Your task to perform on an android device: Check the news Image 0: 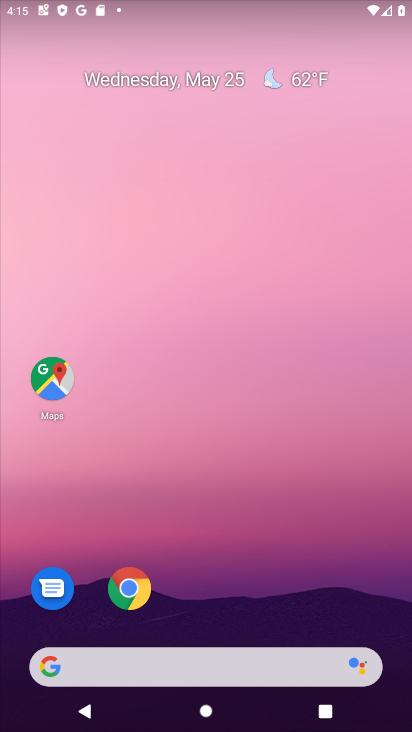
Step 0: drag from (243, 606) to (202, 54)
Your task to perform on an android device: Check the news Image 1: 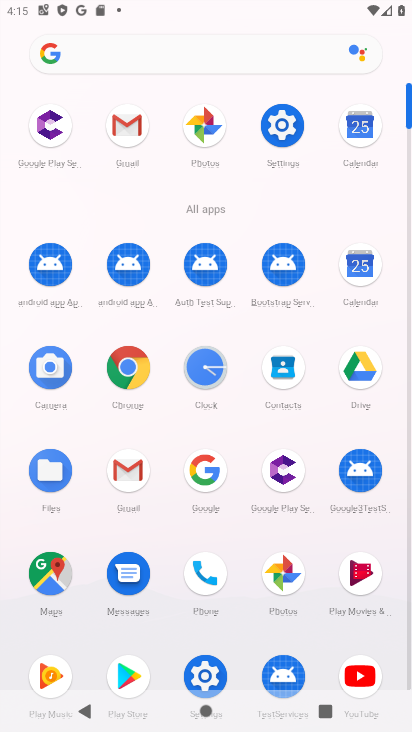
Step 1: click (209, 475)
Your task to perform on an android device: Check the news Image 2: 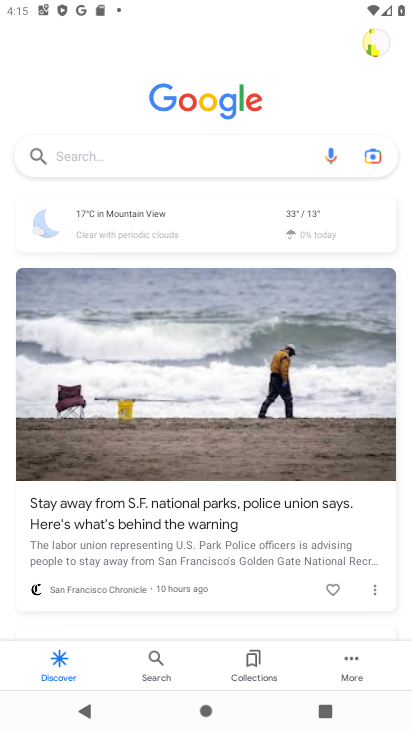
Step 2: click (261, 608)
Your task to perform on an android device: Check the news Image 3: 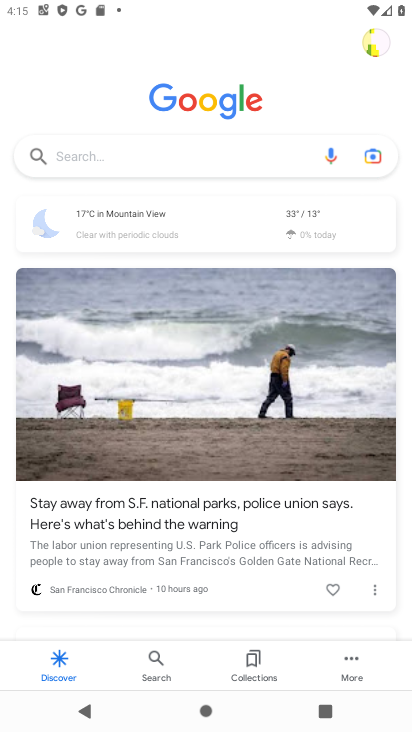
Step 3: click (98, 158)
Your task to perform on an android device: Check the news Image 4: 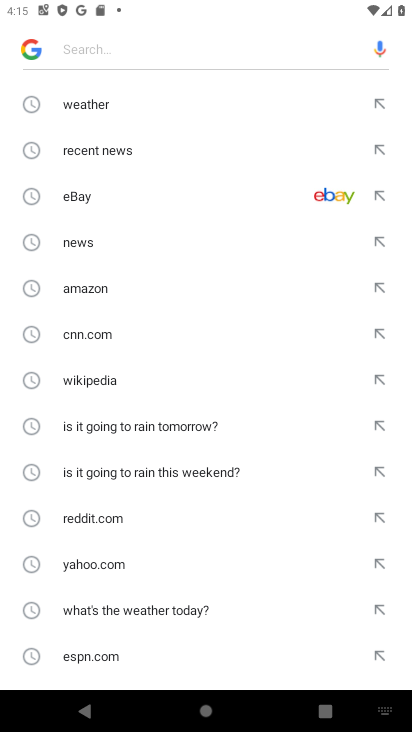
Step 4: click (100, 240)
Your task to perform on an android device: Check the news Image 5: 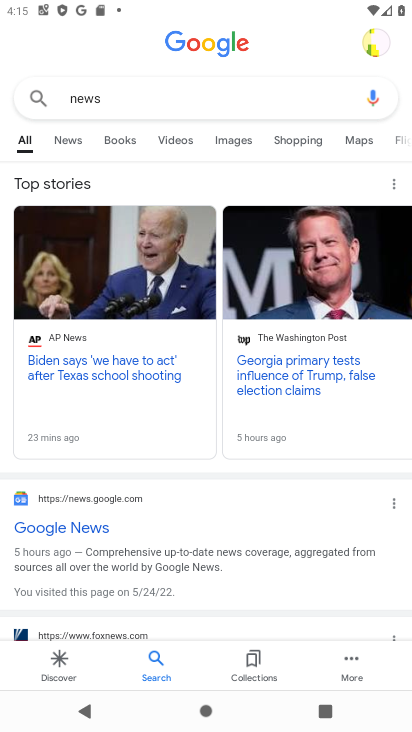
Step 5: task complete